Your task to perform on an android device: Is it going to rain today? Image 0: 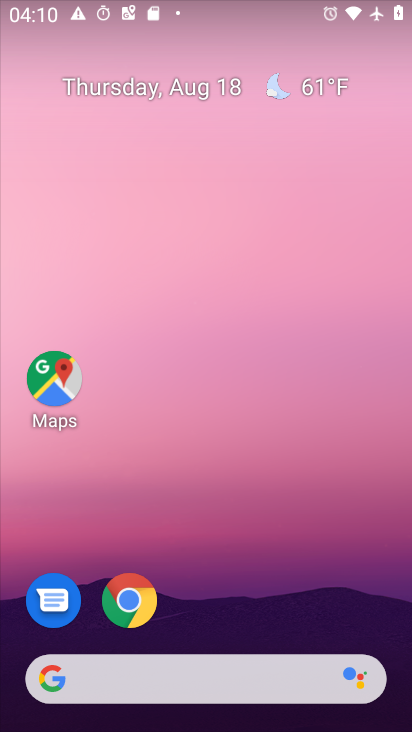
Step 0: press home button
Your task to perform on an android device: Is it going to rain today? Image 1: 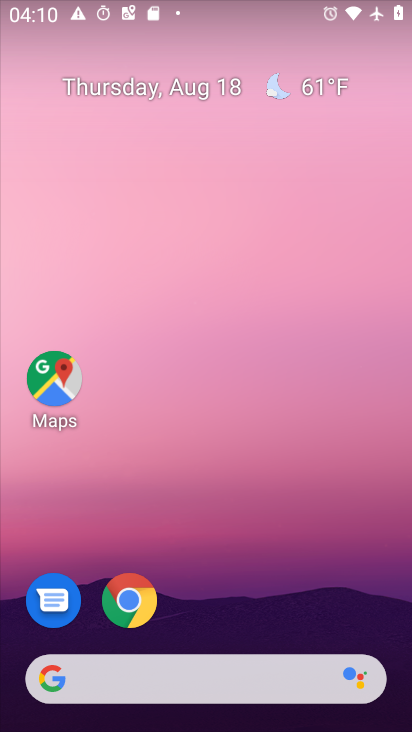
Step 1: click (60, 675)
Your task to perform on an android device: Is it going to rain today? Image 2: 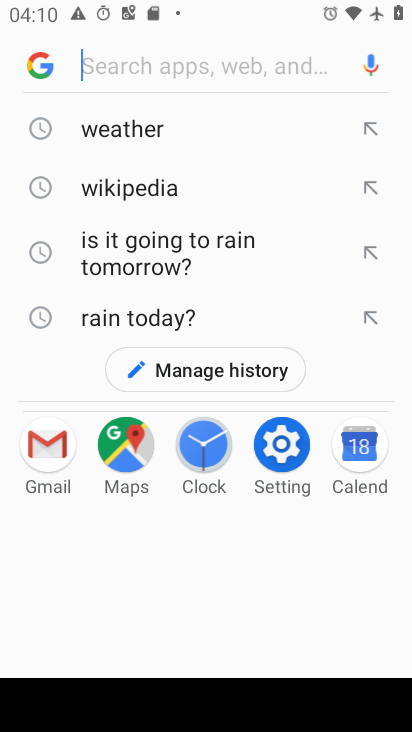
Step 2: click (138, 322)
Your task to perform on an android device: Is it going to rain today? Image 3: 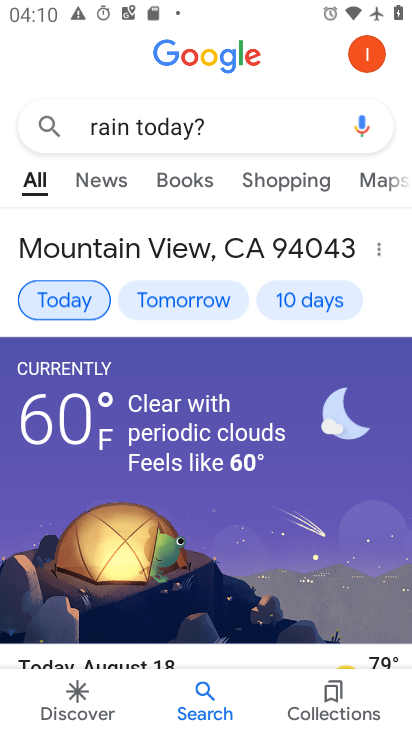
Step 3: task complete